Your task to perform on an android device: Show me recent news Image 0: 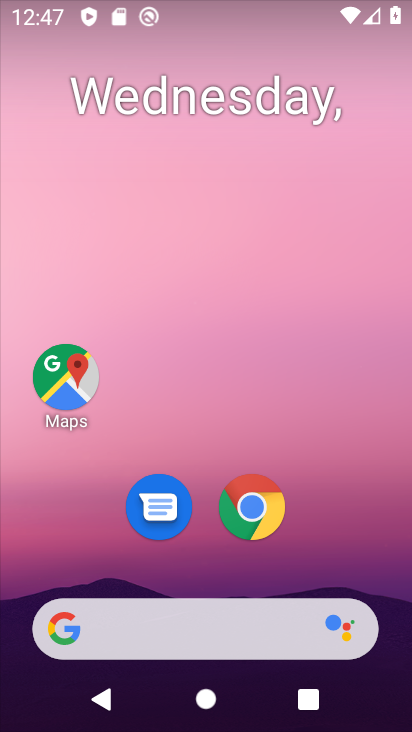
Step 0: drag from (332, 411) to (348, 116)
Your task to perform on an android device: Show me recent news Image 1: 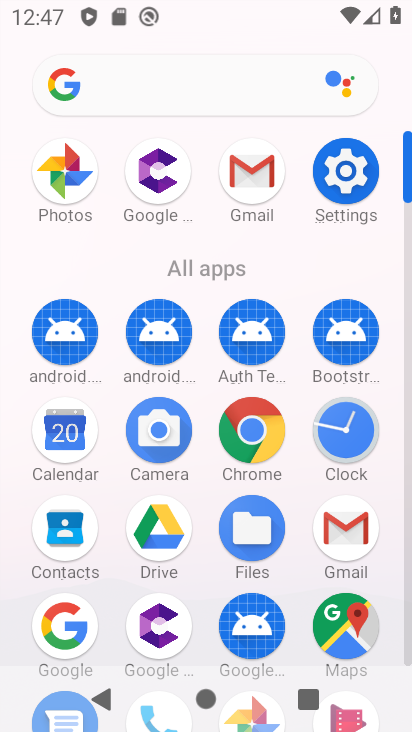
Step 1: click (58, 181)
Your task to perform on an android device: Show me recent news Image 2: 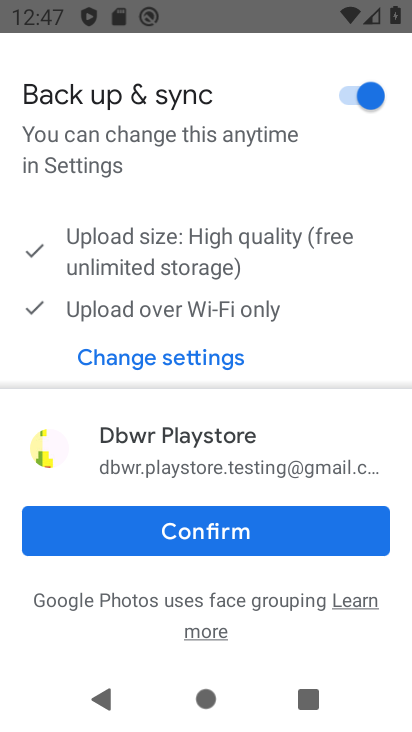
Step 2: click (218, 541)
Your task to perform on an android device: Show me recent news Image 3: 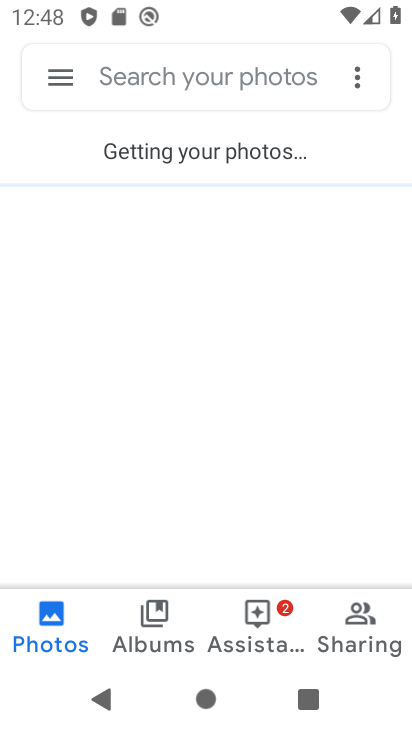
Step 3: click (151, 630)
Your task to perform on an android device: Show me recent news Image 4: 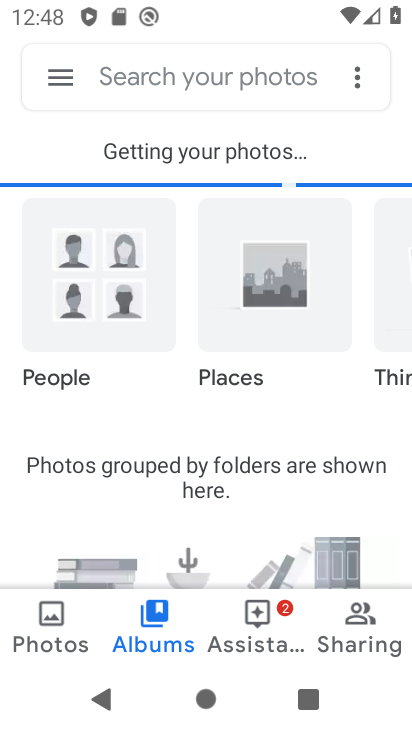
Step 4: click (17, 619)
Your task to perform on an android device: Show me recent news Image 5: 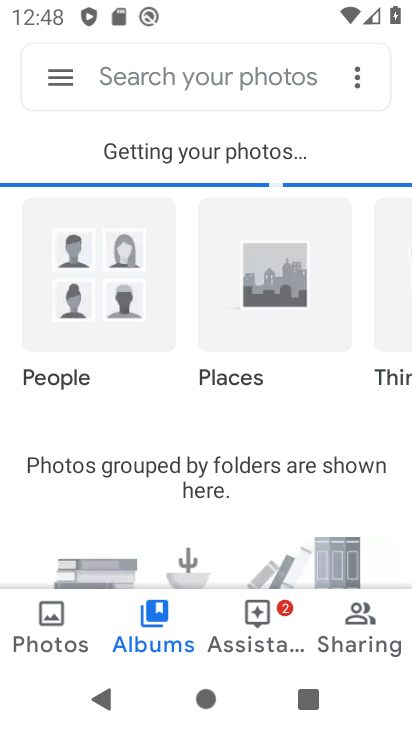
Step 5: click (34, 626)
Your task to perform on an android device: Show me recent news Image 6: 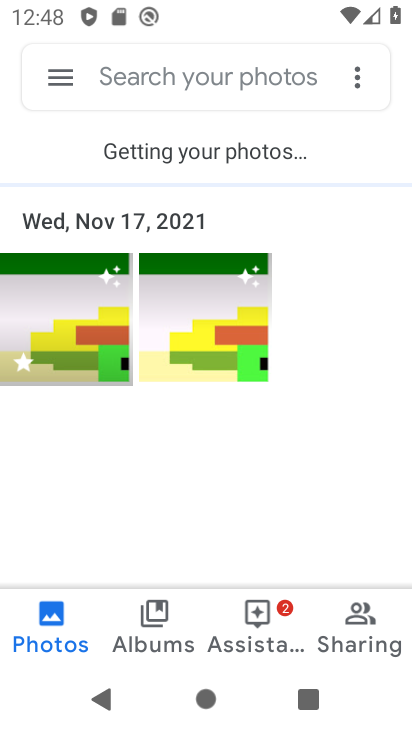
Step 6: click (80, 341)
Your task to perform on an android device: Show me recent news Image 7: 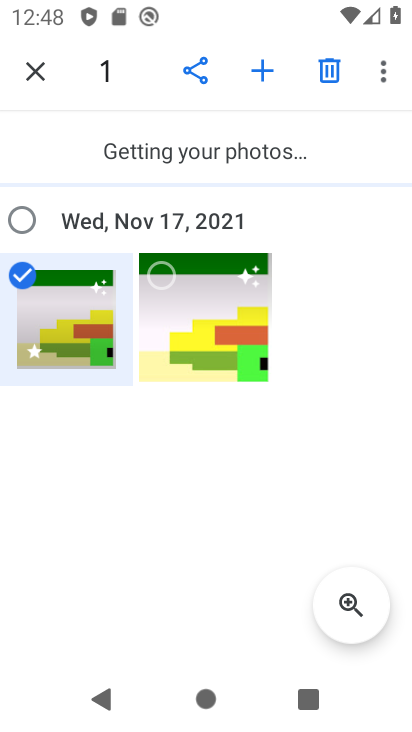
Step 7: click (24, 275)
Your task to perform on an android device: Show me recent news Image 8: 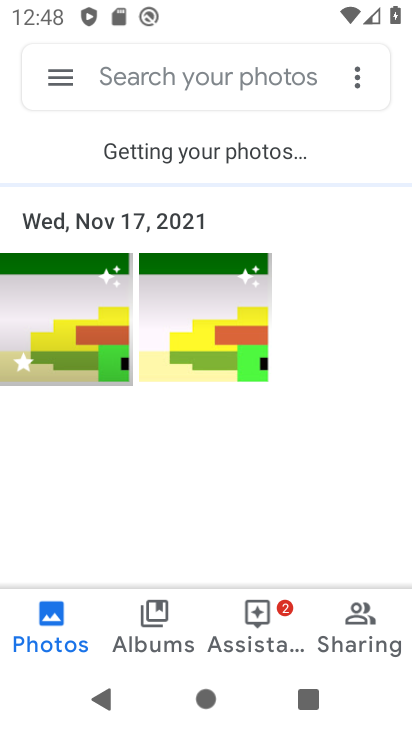
Step 8: click (58, 315)
Your task to perform on an android device: Show me recent news Image 9: 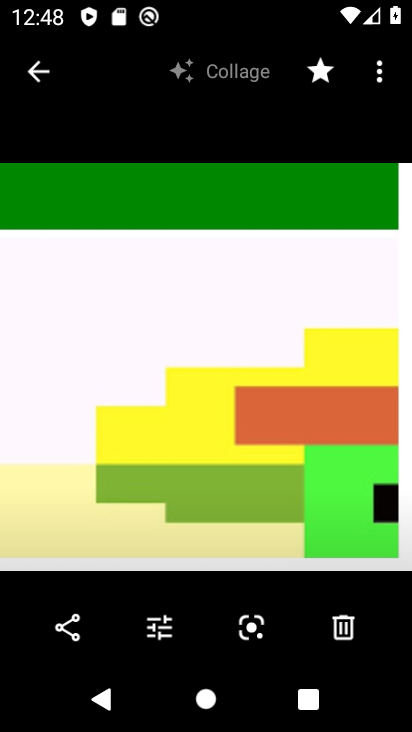
Step 9: task complete